Your task to perform on an android device: Open the calendar app, open the side menu, and click the "Day" option Image 0: 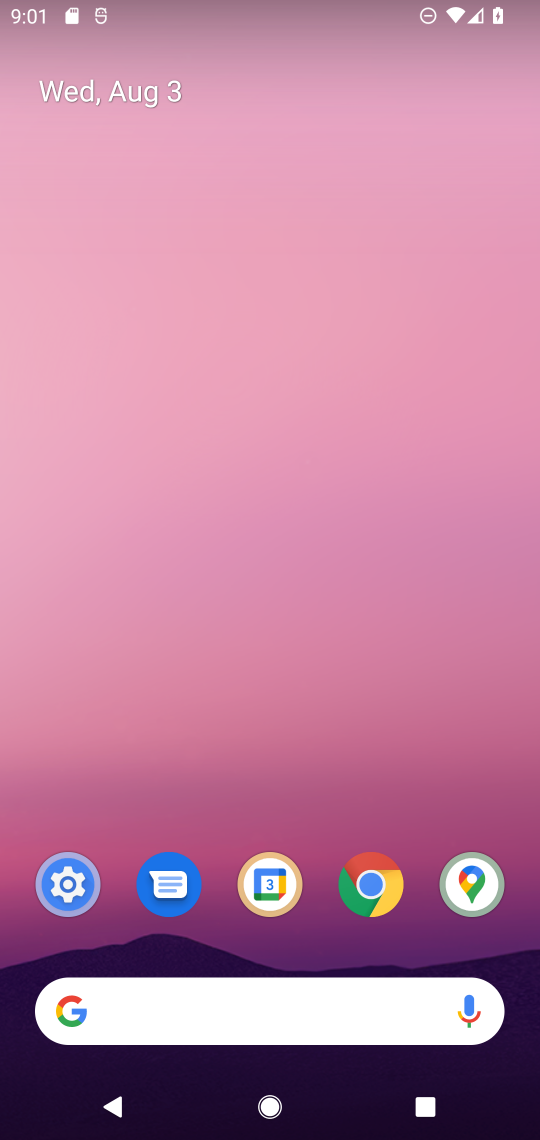
Step 0: drag from (48, 1065) to (240, 42)
Your task to perform on an android device: Open the calendar app, open the side menu, and click the "Day" option Image 1: 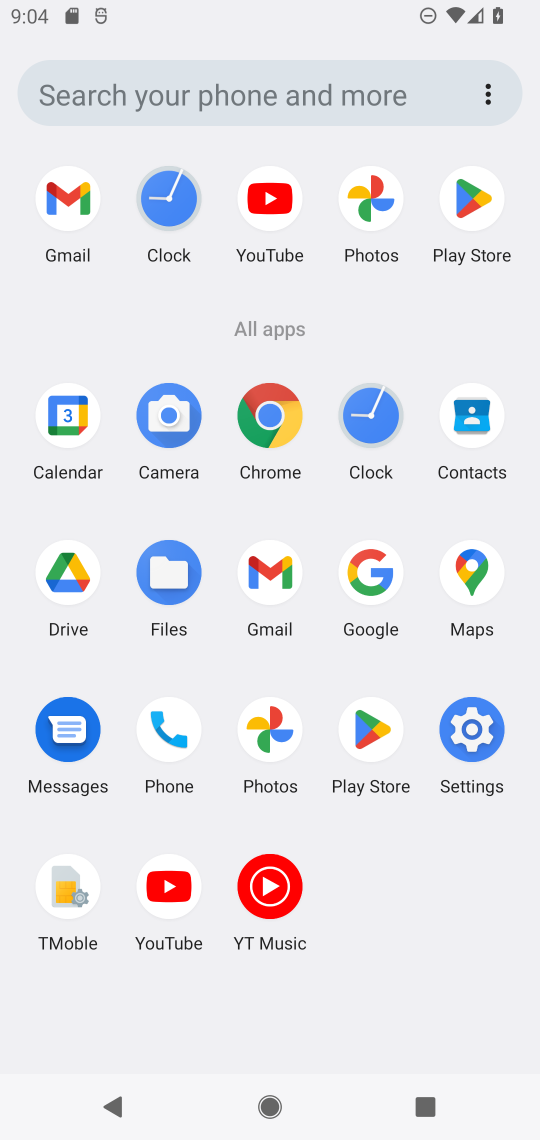
Step 1: task complete